Your task to perform on an android device: toggle improve location accuracy Image 0: 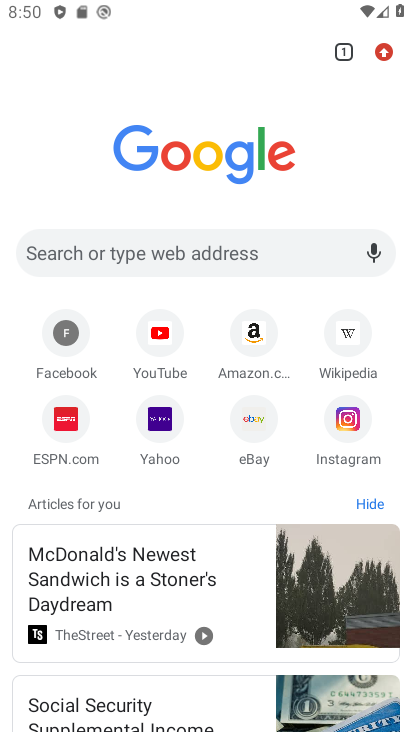
Step 0: press home button
Your task to perform on an android device: toggle improve location accuracy Image 1: 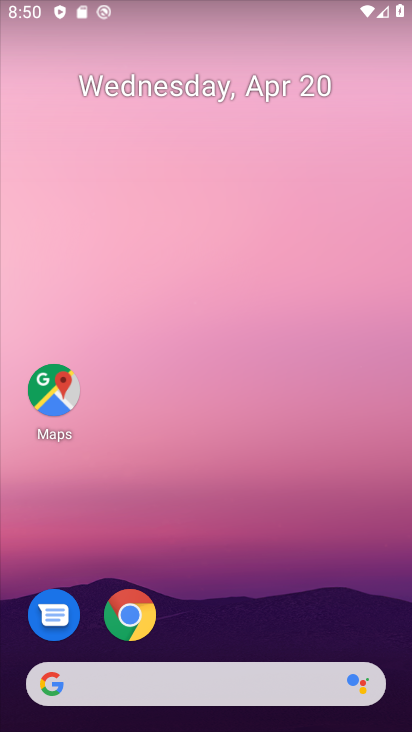
Step 1: drag from (43, 615) to (230, 241)
Your task to perform on an android device: toggle improve location accuracy Image 2: 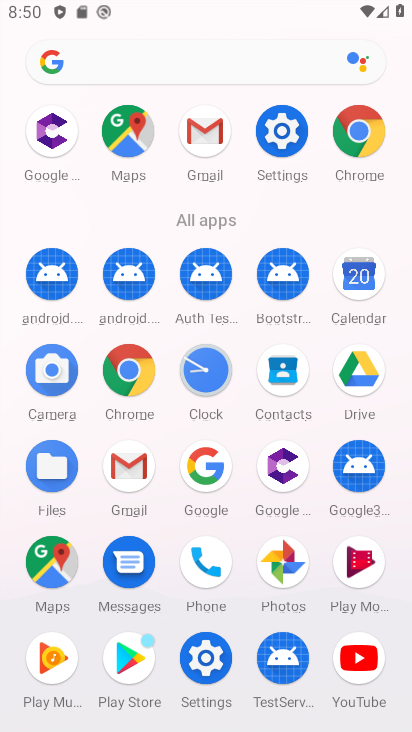
Step 2: click (270, 142)
Your task to perform on an android device: toggle improve location accuracy Image 3: 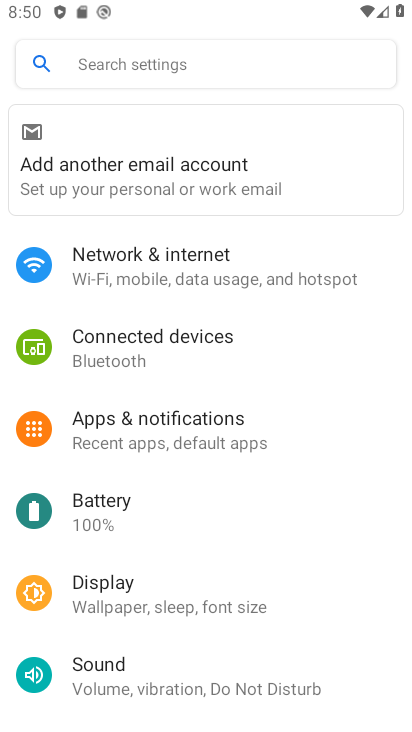
Step 3: drag from (165, 676) to (218, 295)
Your task to perform on an android device: toggle improve location accuracy Image 4: 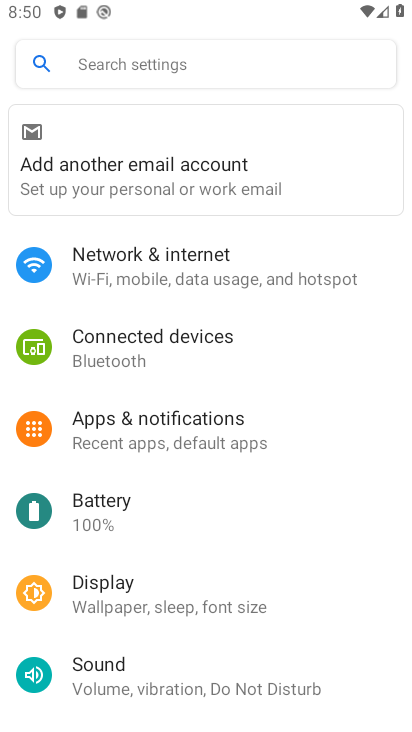
Step 4: drag from (85, 706) to (177, 349)
Your task to perform on an android device: toggle improve location accuracy Image 5: 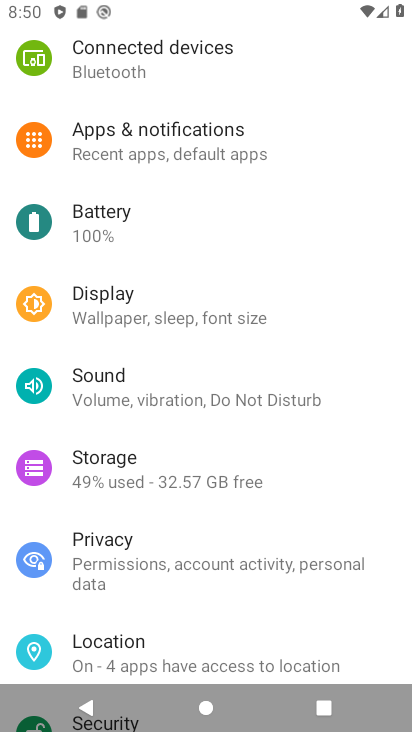
Step 5: click (136, 660)
Your task to perform on an android device: toggle improve location accuracy Image 6: 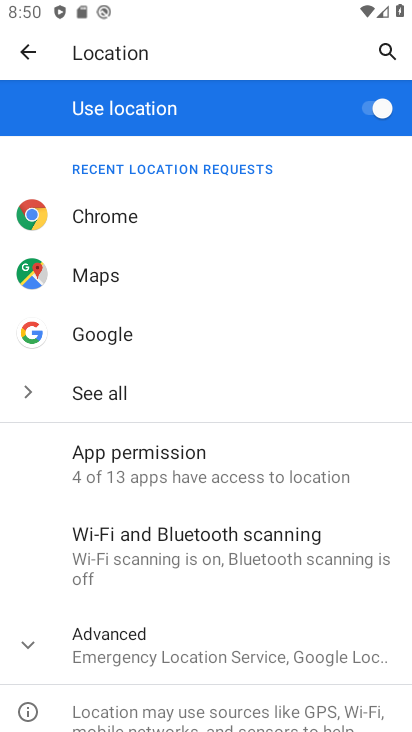
Step 6: click (120, 656)
Your task to perform on an android device: toggle improve location accuracy Image 7: 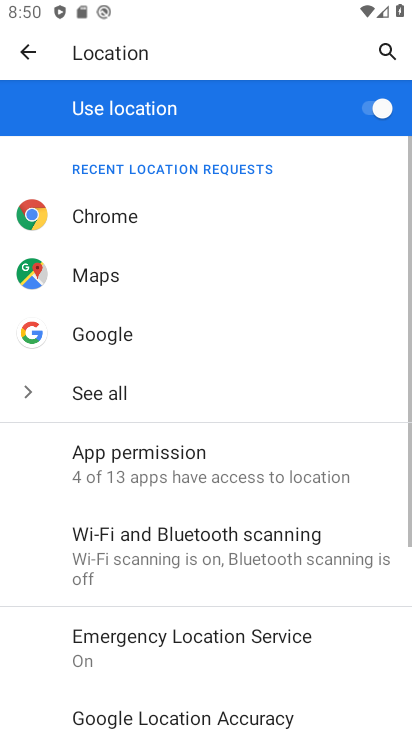
Step 7: drag from (120, 655) to (154, 393)
Your task to perform on an android device: toggle improve location accuracy Image 8: 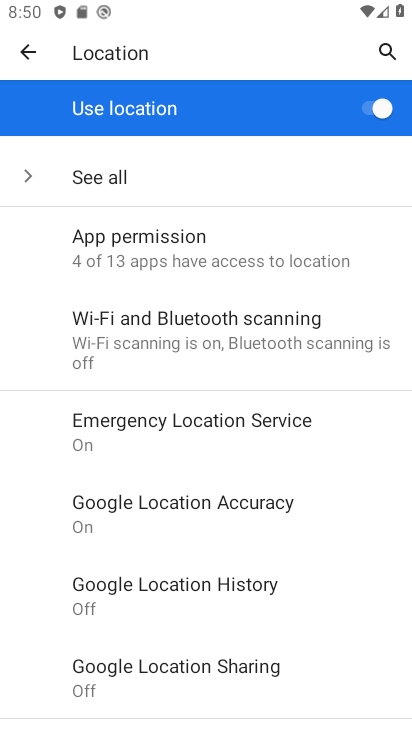
Step 8: click (192, 508)
Your task to perform on an android device: toggle improve location accuracy Image 9: 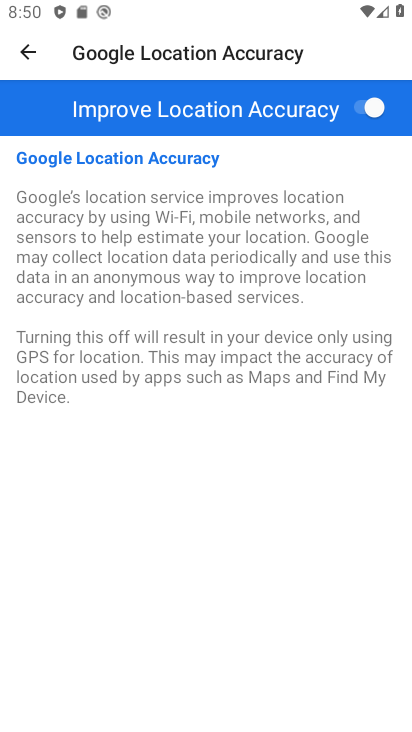
Step 9: click (373, 110)
Your task to perform on an android device: toggle improve location accuracy Image 10: 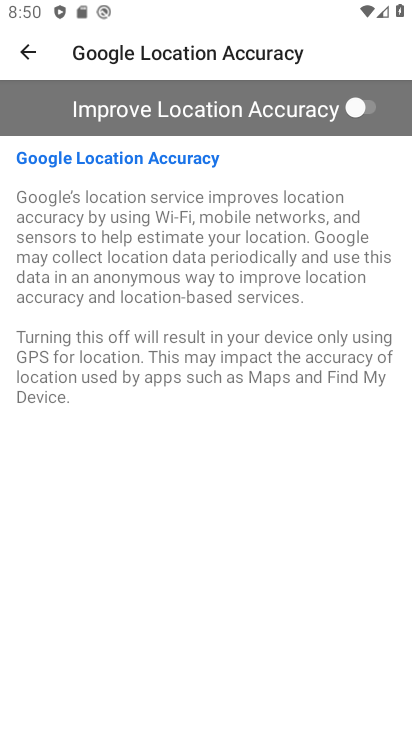
Step 10: task complete